Your task to perform on an android device: open app "McDonald's" Image 0: 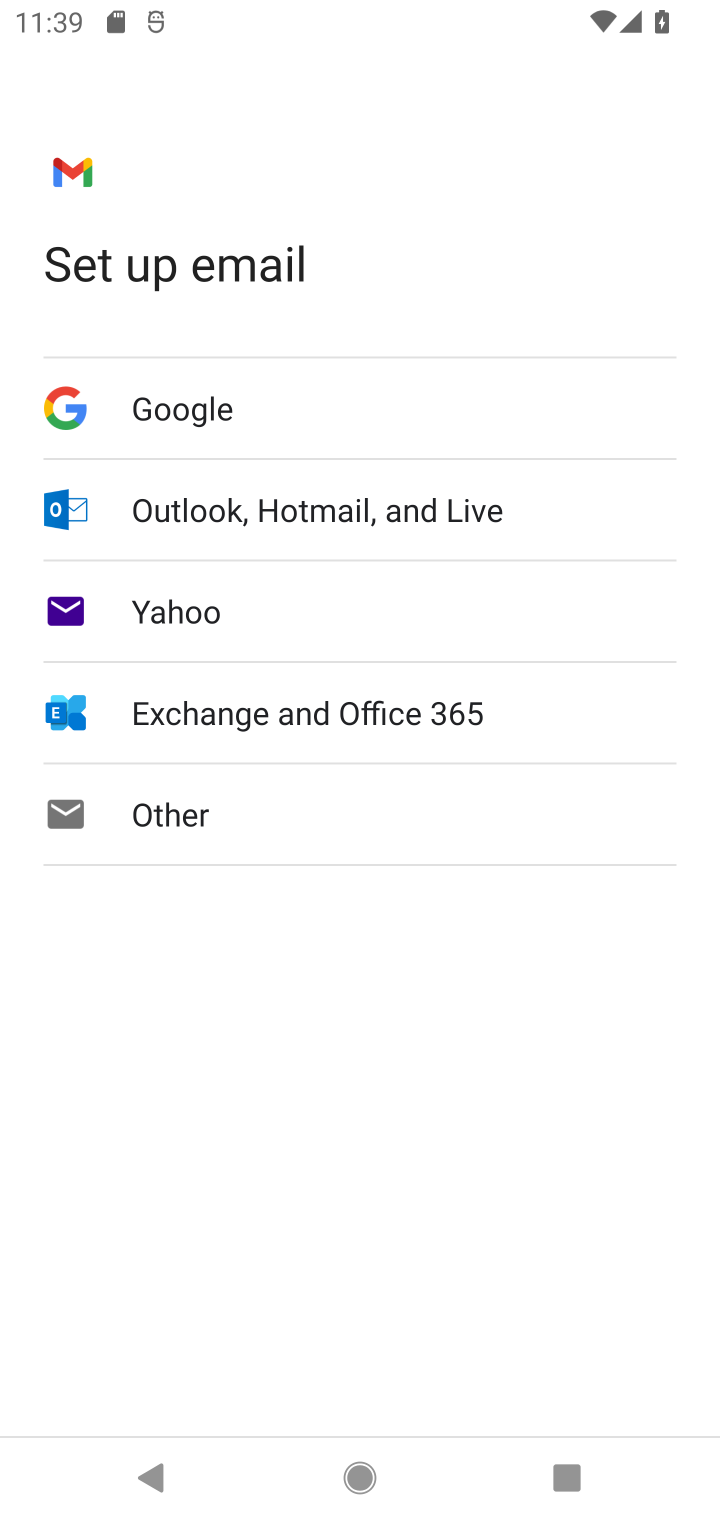
Step 0: press home button
Your task to perform on an android device: open app "McDonald's" Image 1: 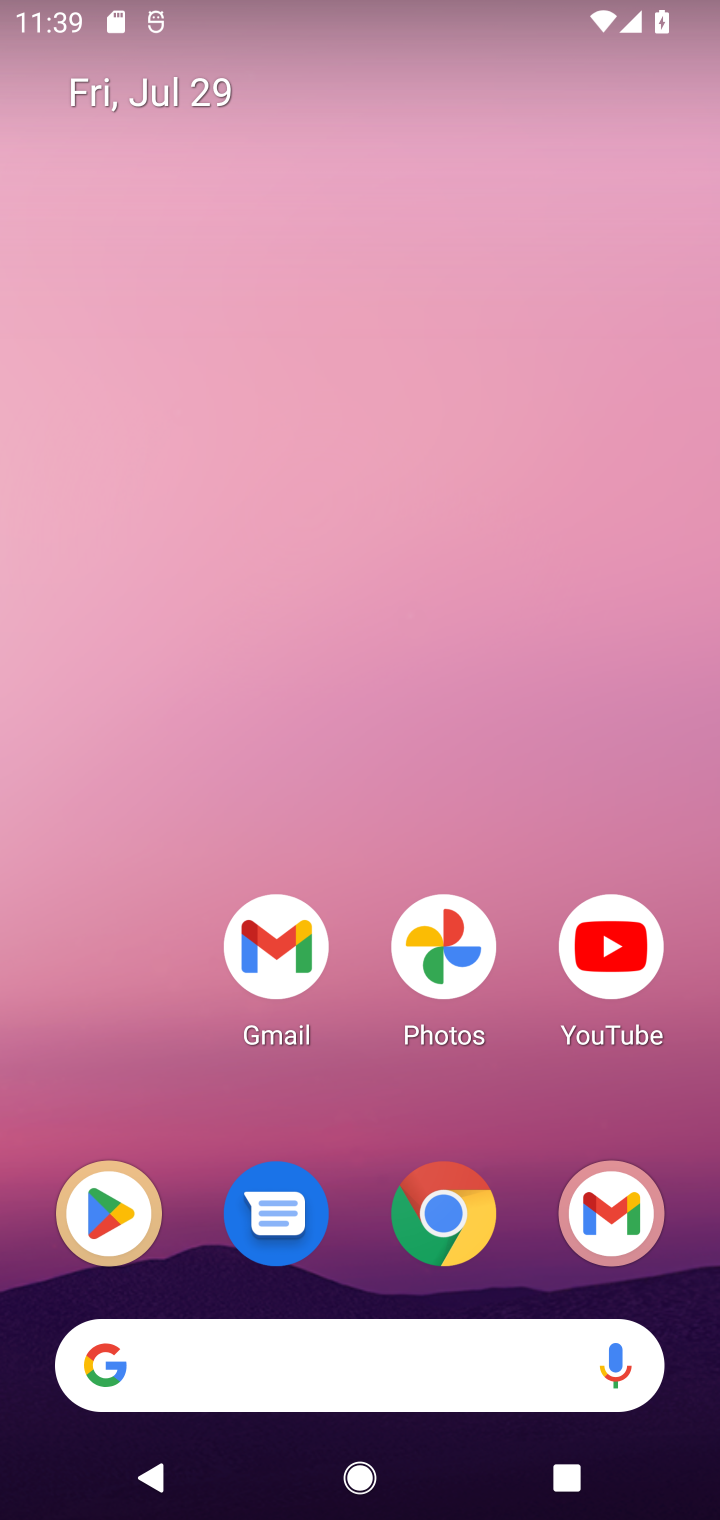
Step 1: drag from (429, 1502) to (416, 609)
Your task to perform on an android device: open app "McDonald's" Image 2: 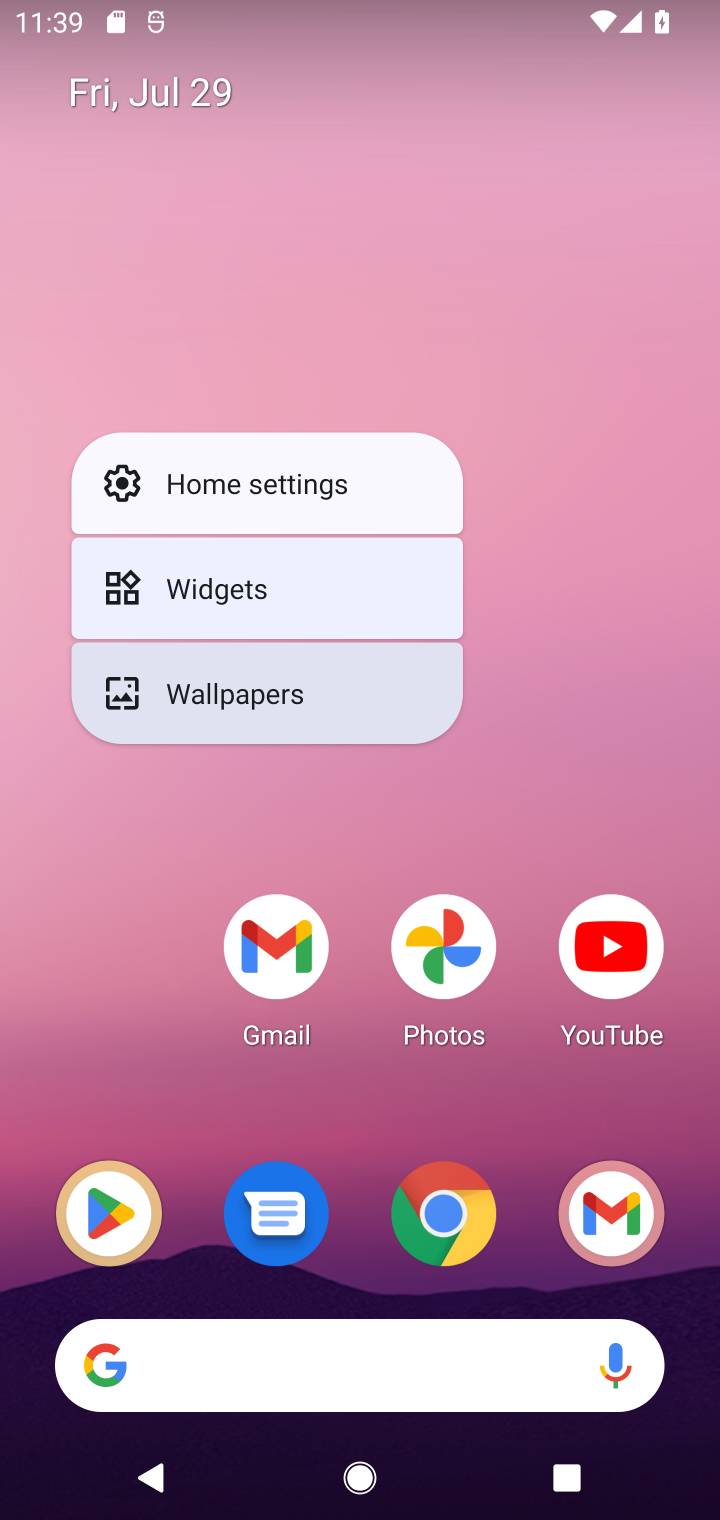
Step 2: click (541, 628)
Your task to perform on an android device: open app "McDonald's" Image 3: 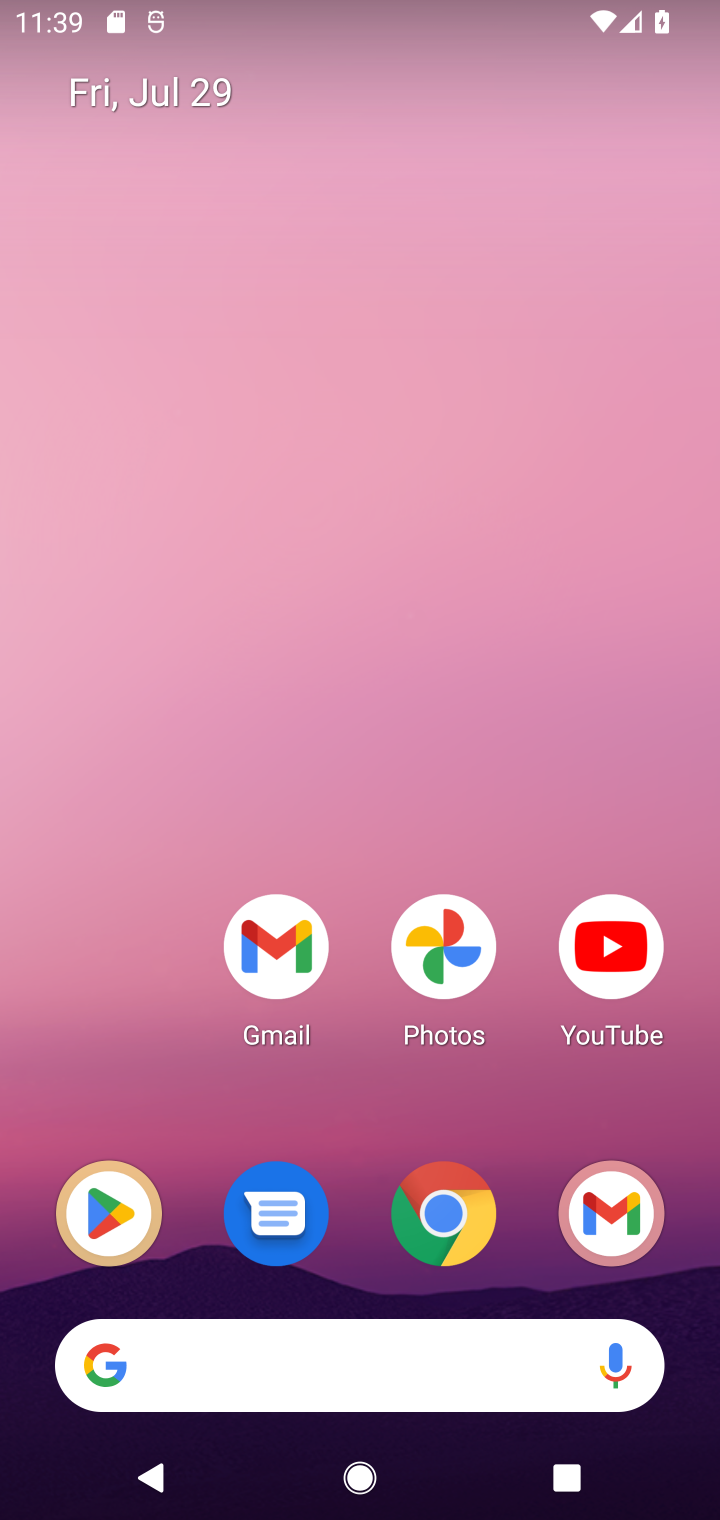
Step 3: drag from (447, 1511) to (447, 198)
Your task to perform on an android device: open app "McDonald's" Image 4: 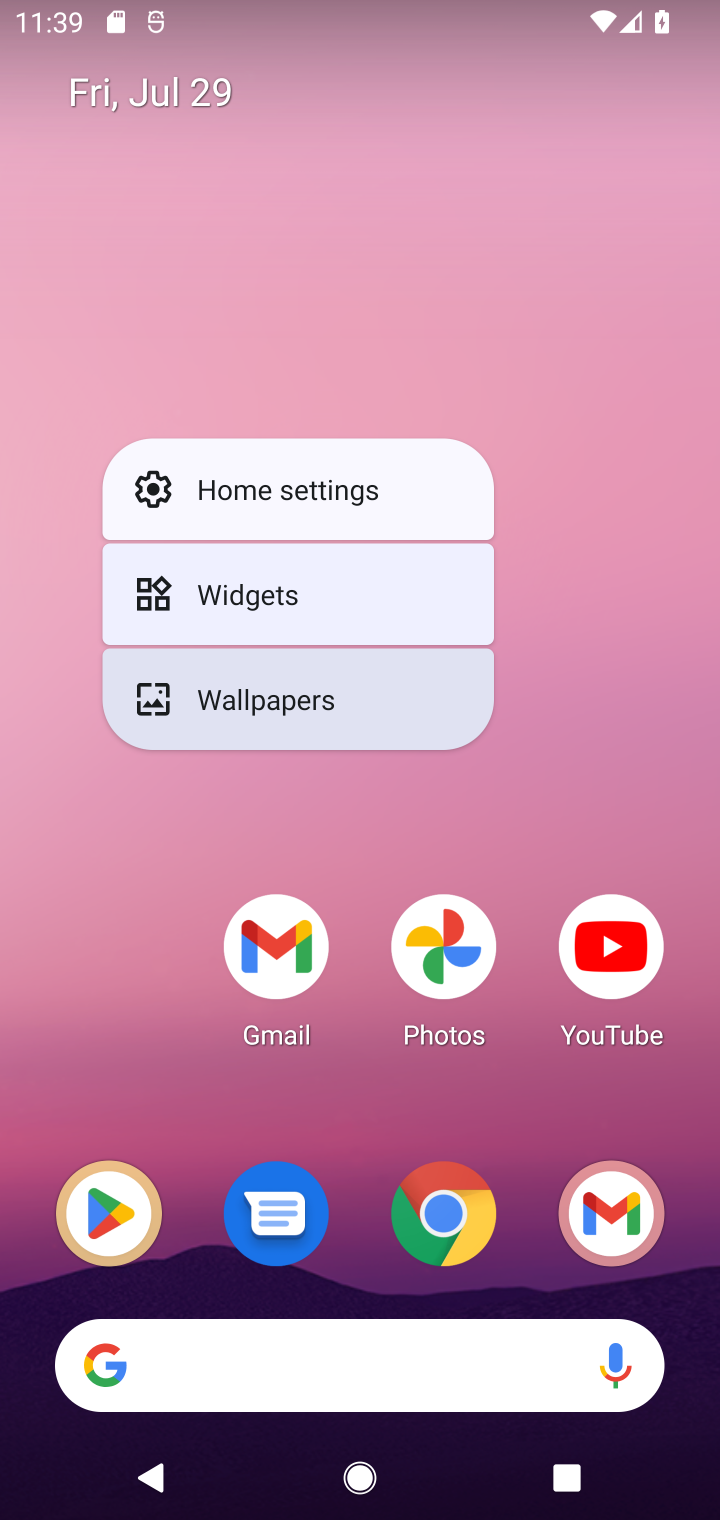
Step 4: click (393, 269)
Your task to perform on an android device: open app "McDonald's" Image 5: 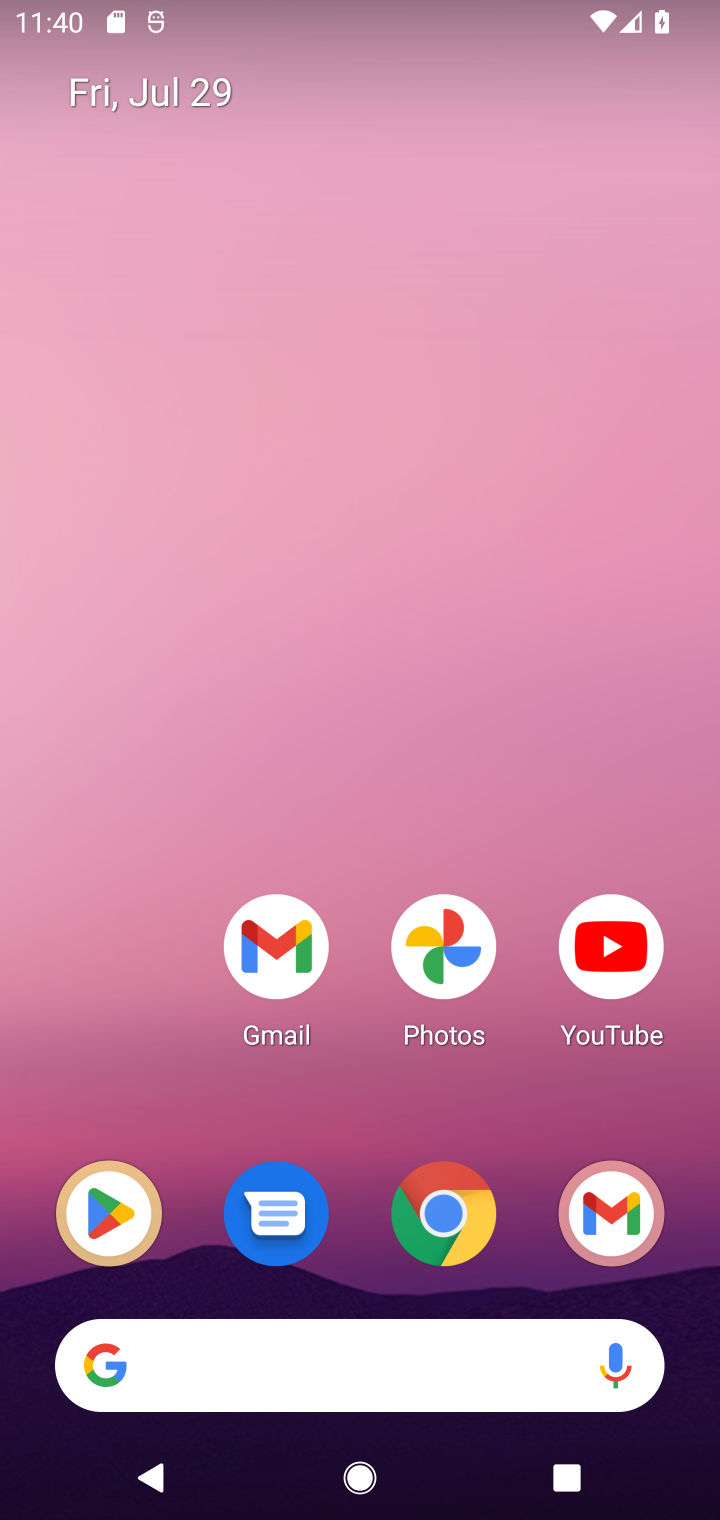
Step 5: drag from (420, 1511) to (475, 81)
Your task to perform on an android device: open app "McDonald's" Image 6: 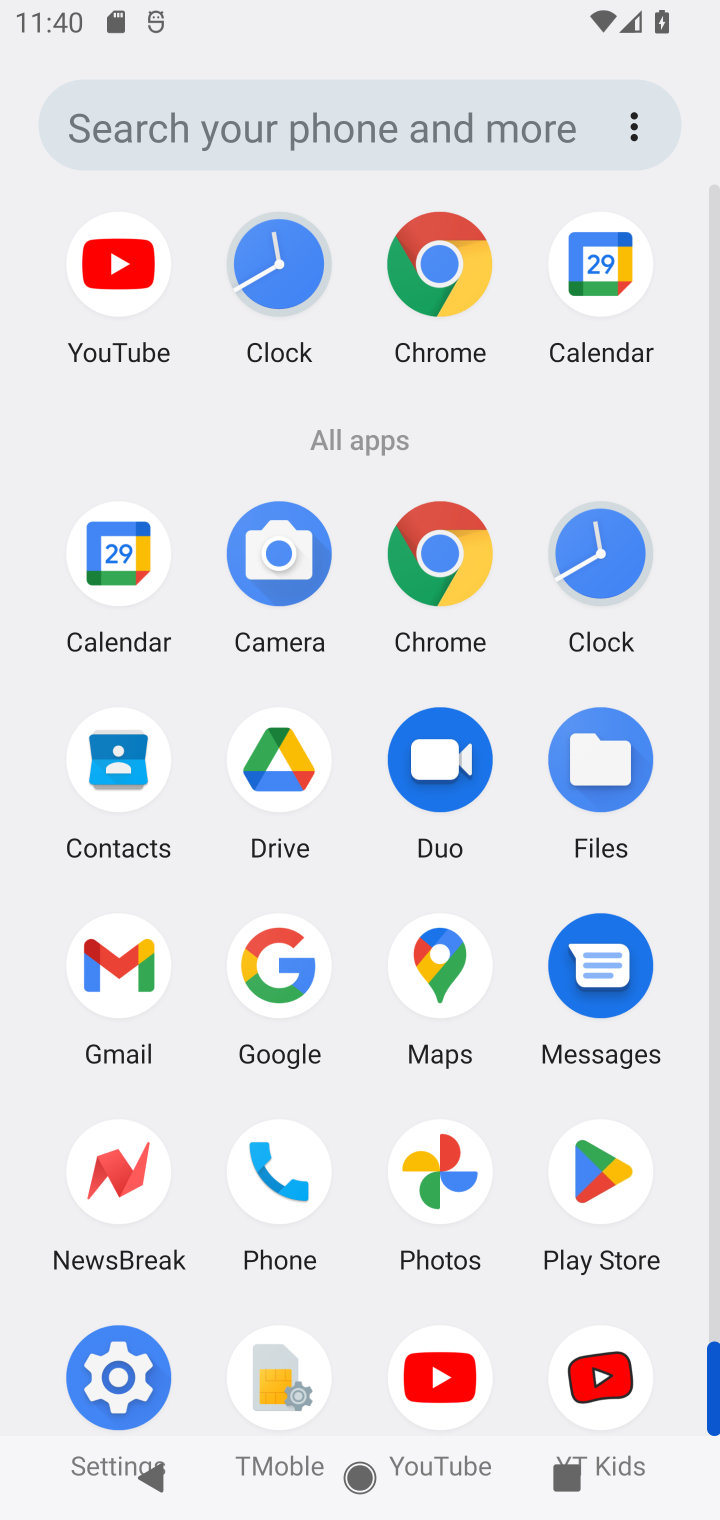
Step 6: click (589, 1179)
Your task to perform on an android device: open app "McDonald's" Image 7: 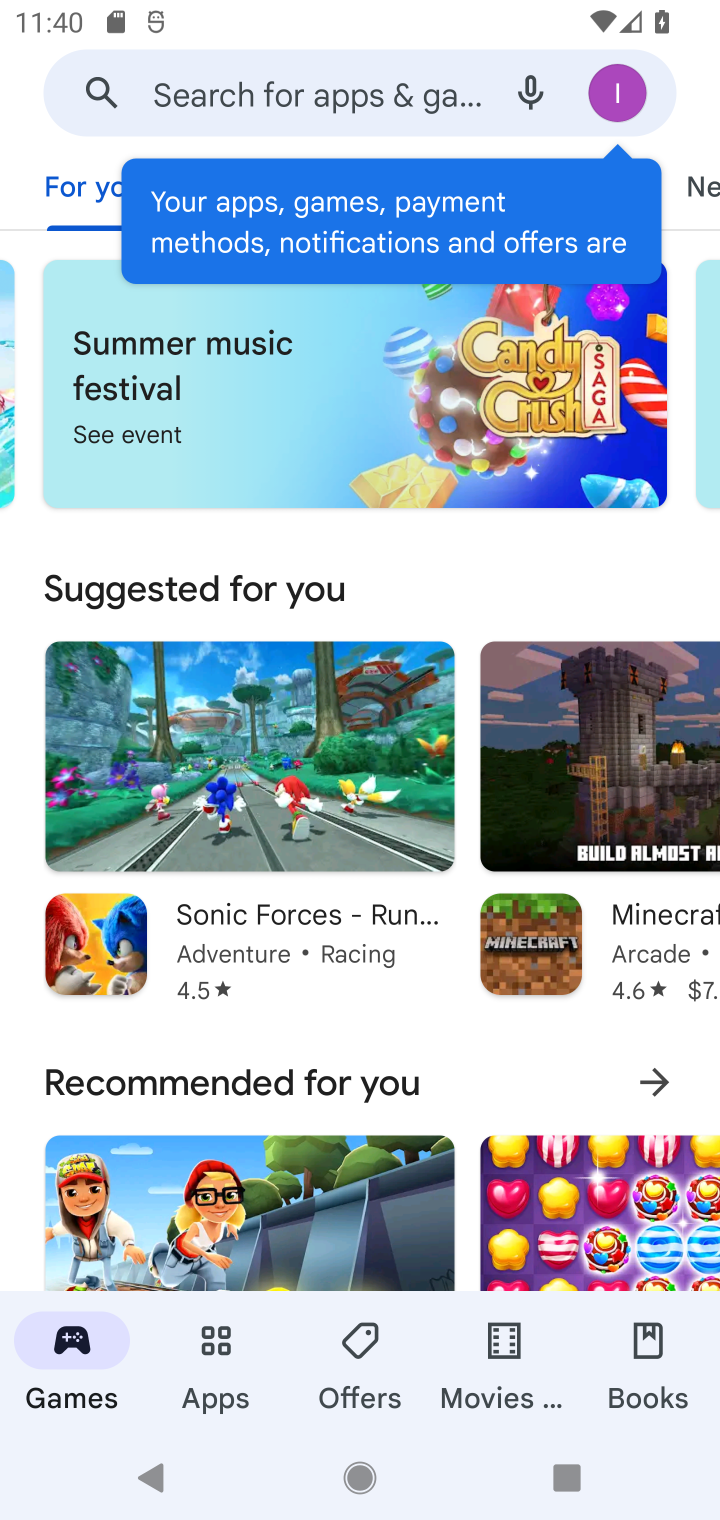
Step 7: click (377, 83)
Your task to perform on an android device: open app "McDonald's" Image 8: 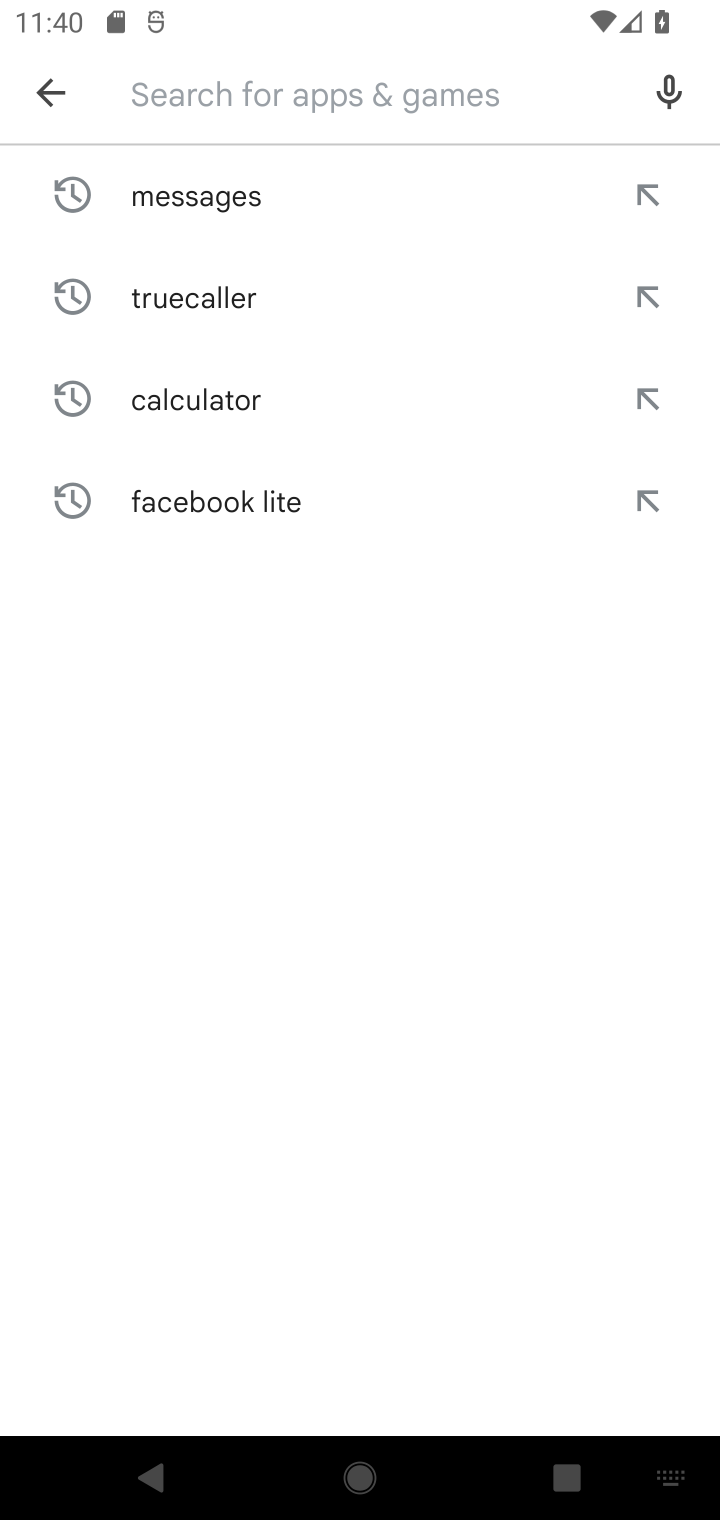
Step 8: click (285, 95)
Your task to perform on an android device: open app "McDonald's" Image 9: 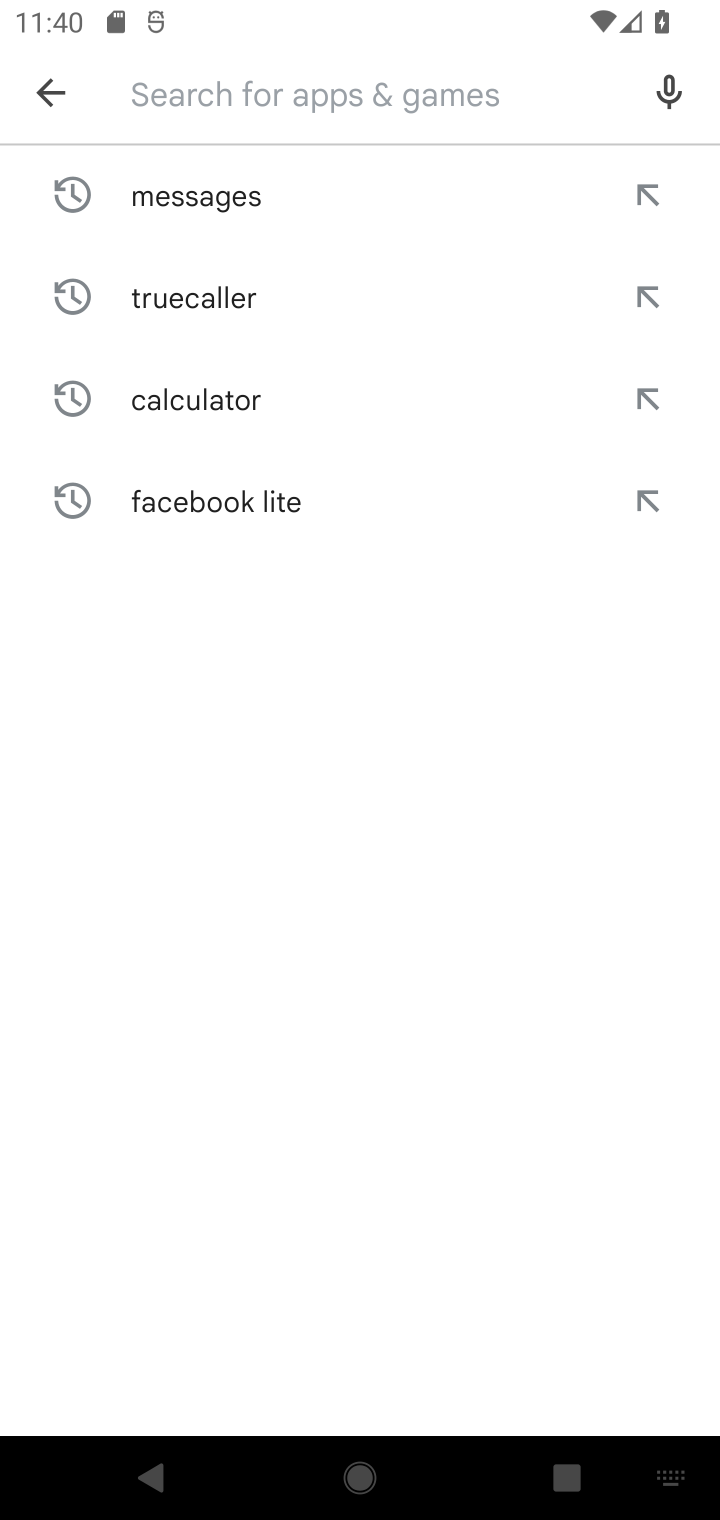
Step 9: type "McDonald's"
Your task to perform on an android device: open app "McDonald's" Image 10: 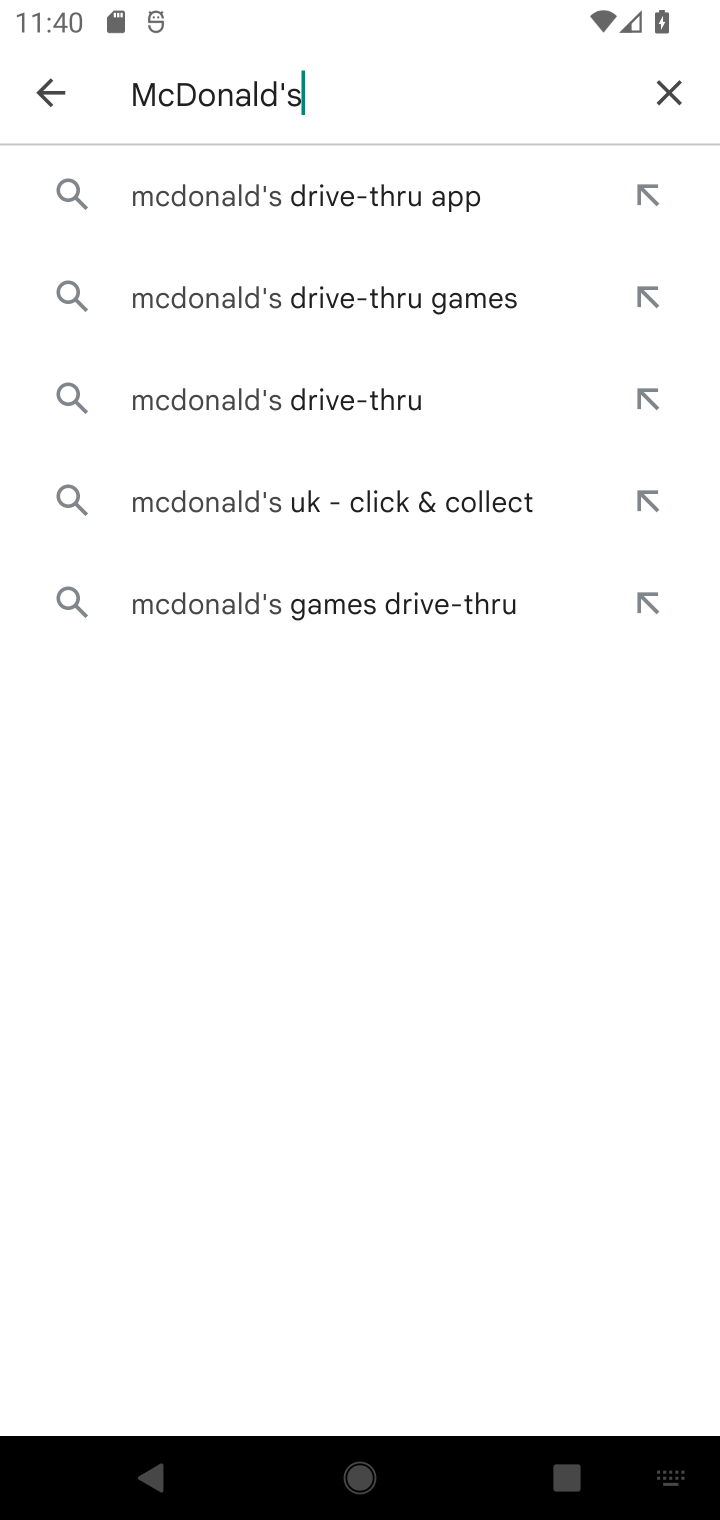
Step 10: click (355, 180)
Your task to perform on an android device: open app "McDonald's" Image 11: 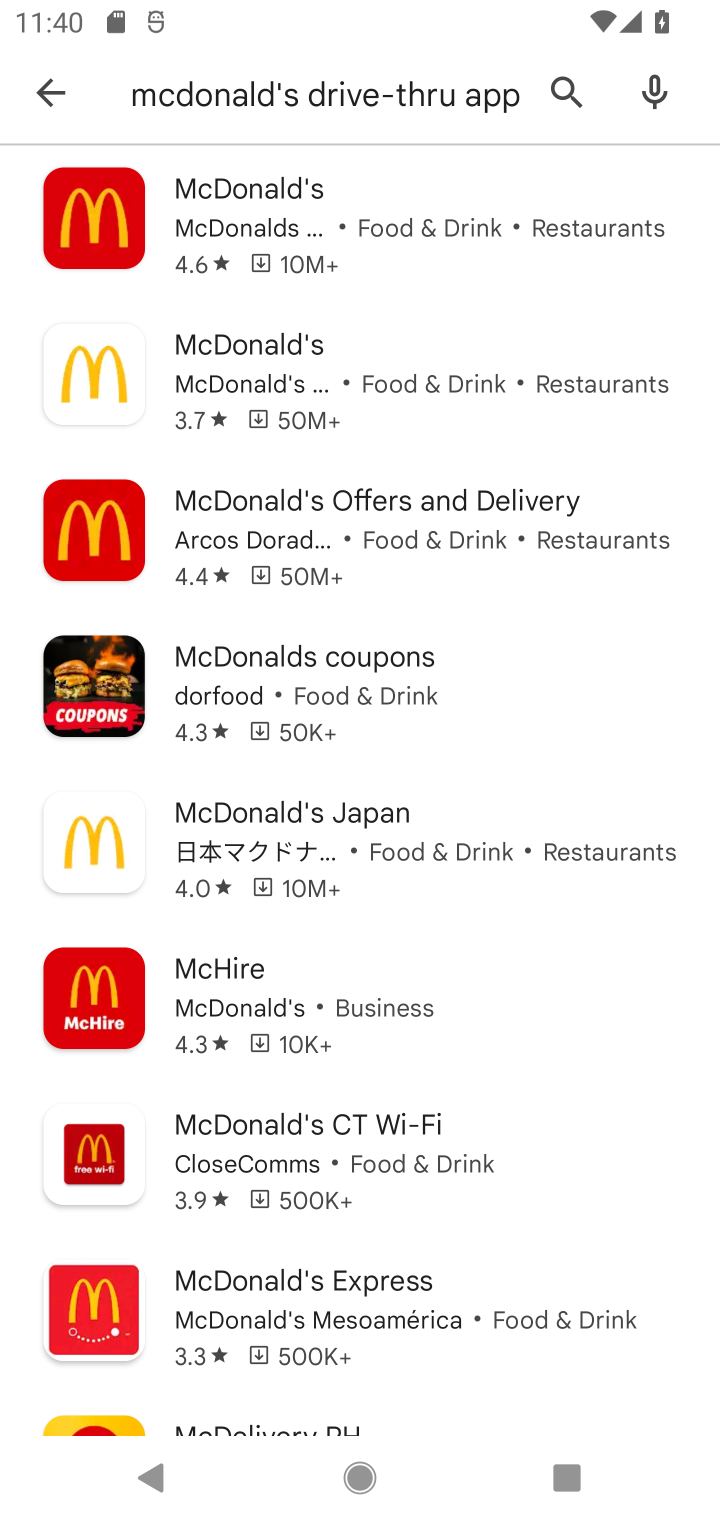
Step 11: click (265, 216)
Your task to perform on an android device: open app "McDonald's" Image 12: 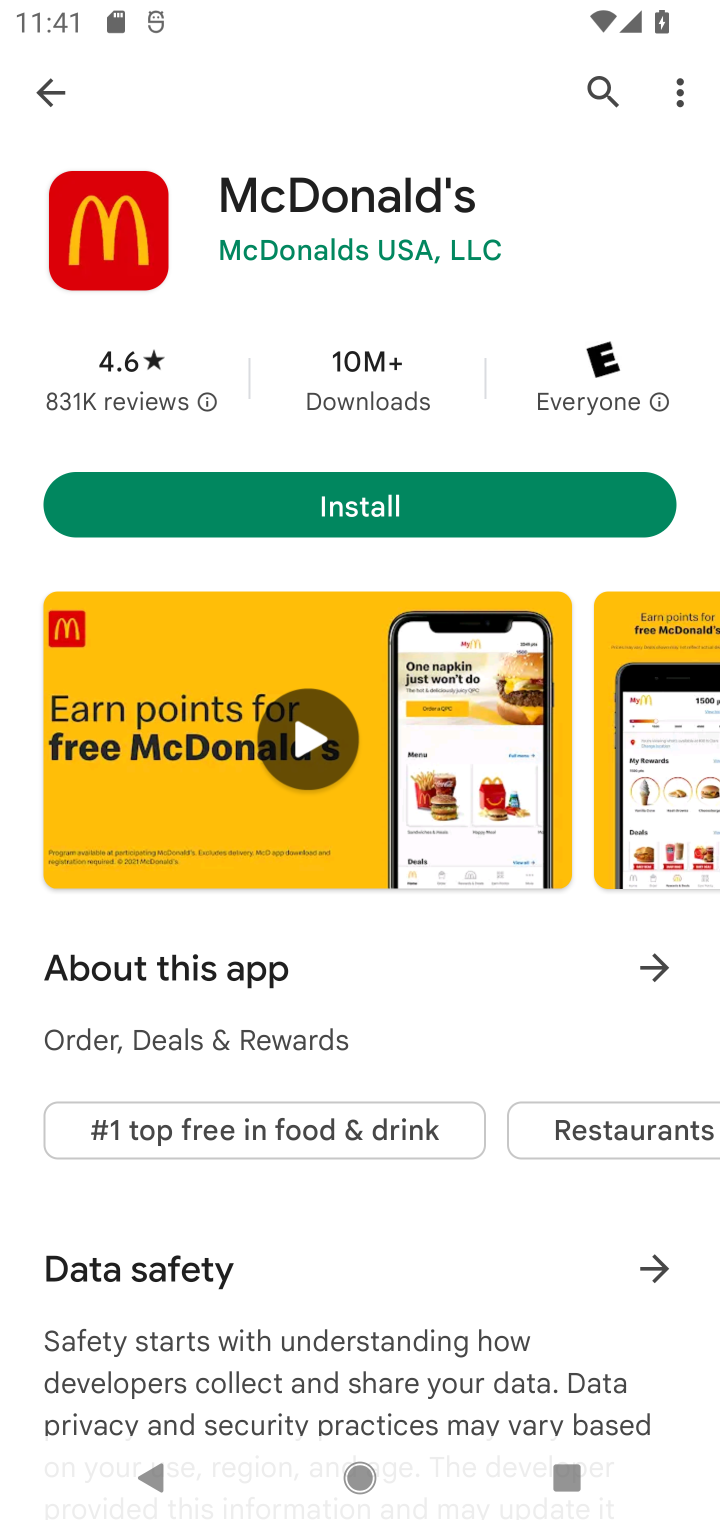
Step 12: task complete